Your task to perform on an android device: Open battery settings Image 0: 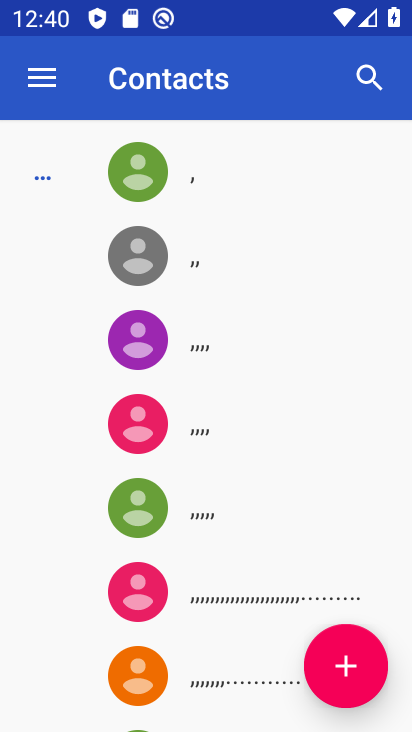
Step 0: press home button
Your task to perform on an android device: Open battery settings Image 1: 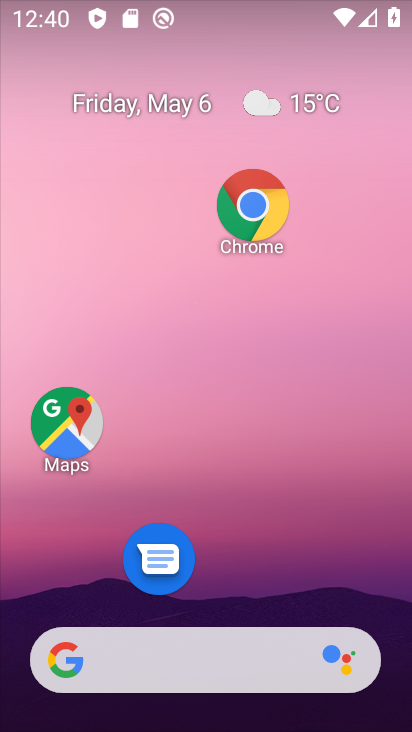
Step 1: drag from (228, 585) to (320, 6)
Your task to perform on an android device: Open battery settings Image 2: 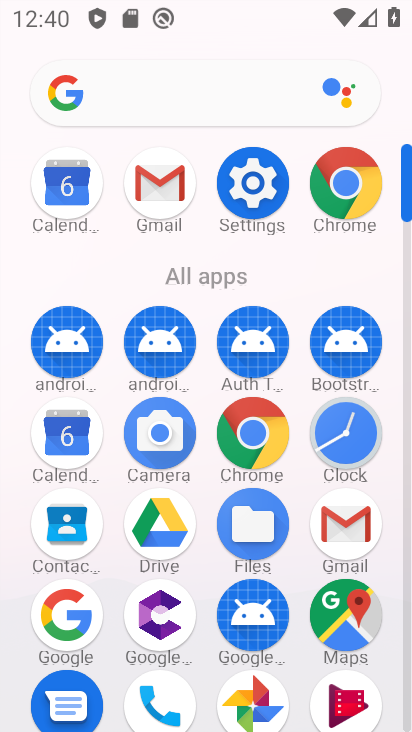
Step 2: click (246, 192)
Your task to perform on an android device: Open battery settings Image 3: 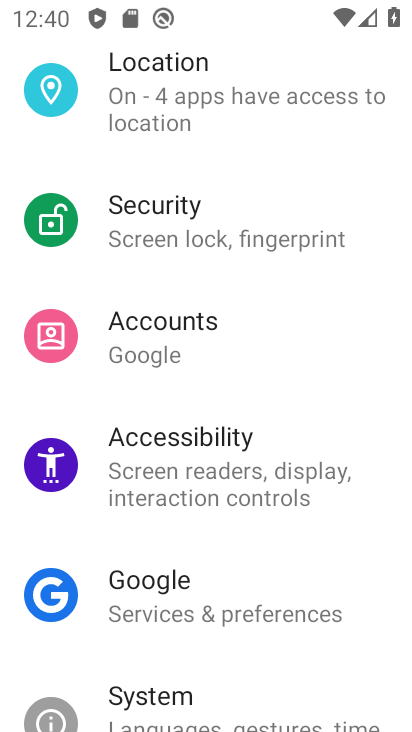
Step 3: drag from (295, 601) to (237, 722)
Your task to perform on an android device: Open battery settings Image 4: 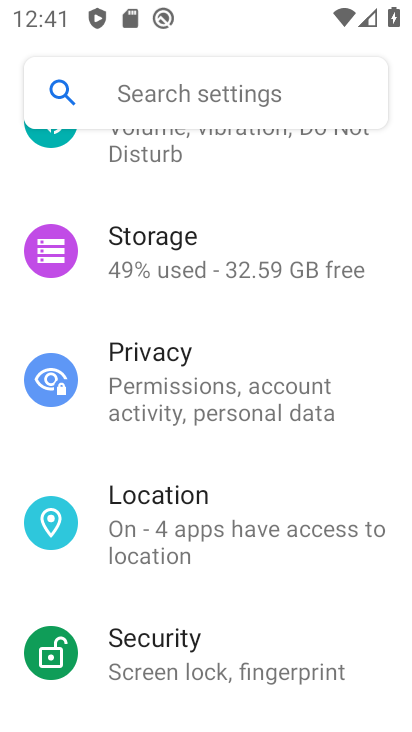
Step 4: drag from (300, 272) to (291, 591)
Your task to perform on an android device: Open battery settings Image 5: 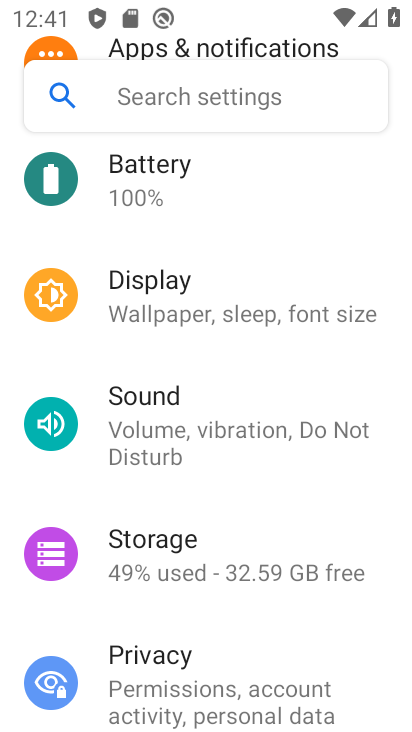
Step 5: click (142, 179)
Your task to perform on an android device: Open battery settings Image 6: 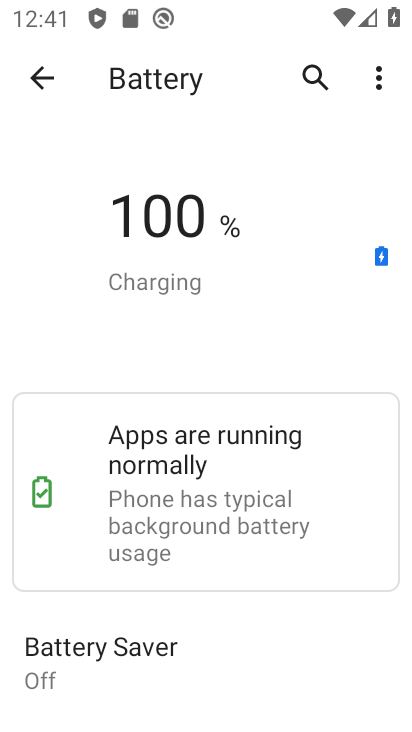
Step 6: task complete